Your task to perform on an android device: turn off notifications settings in the gmail app Image 0: 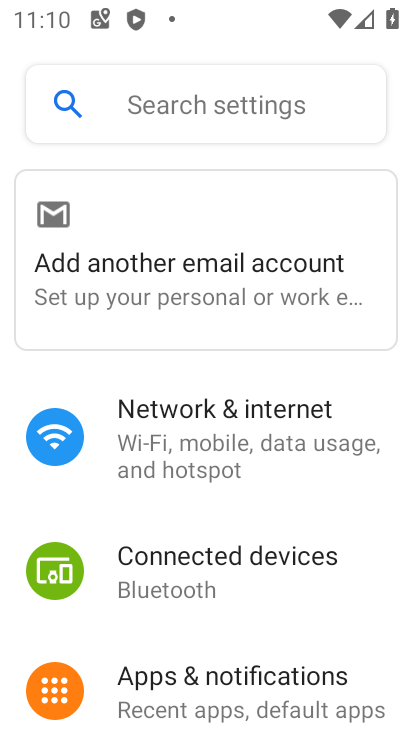
Step 0: press home button
Your task to perform on an android device: turn off notifications settings in the gmail app Image 1: 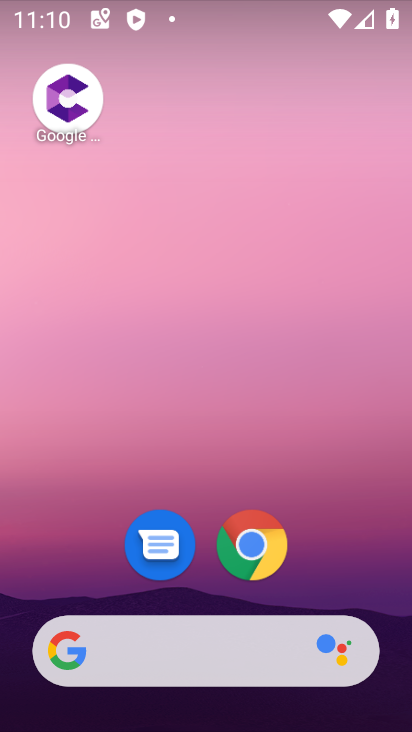
Step 1: drag from (330, 586) to (253, 323)
Your task to perform on an android device: turn off notifications settings in the gmail app Image 2: 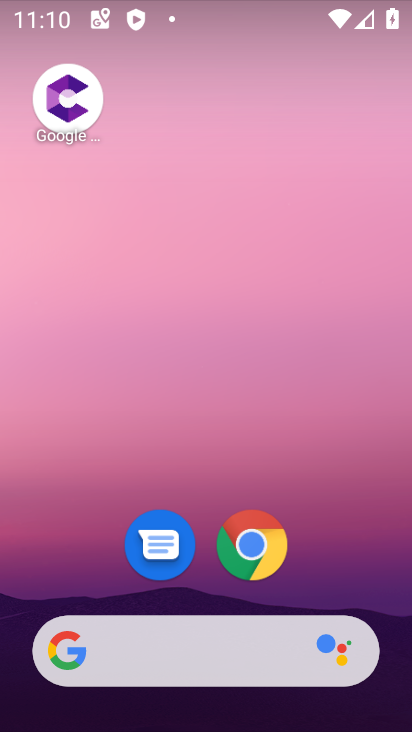
Step 2: drag from (317, 607) to (238, 1)
Your task to perform on an android device: turn off notifications settings in the gmail app Image 3: 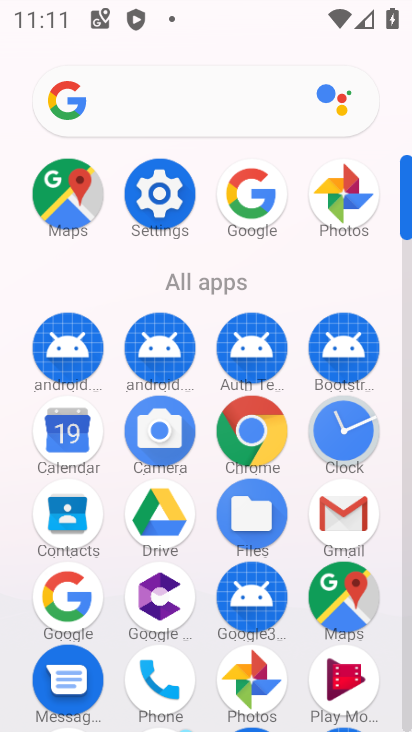
Step 3: click (337, 521)
Your task to perform on an android device: turn off notifications settings in the gmail app Image 4: 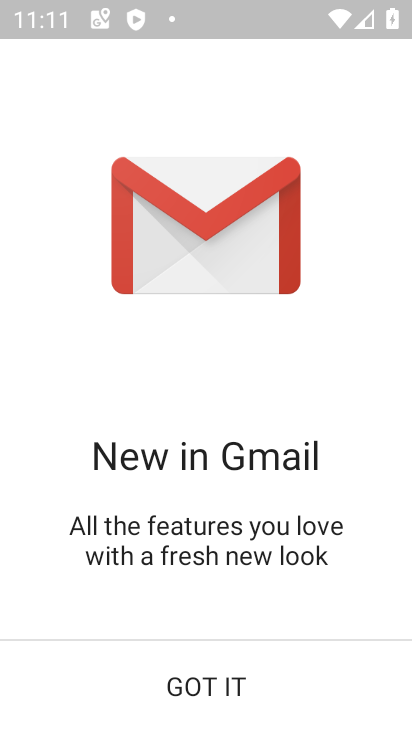
Step 4: click (212, 680)
Your task to perform on an android device: turn off notifications settings in the gmail app Image 5: 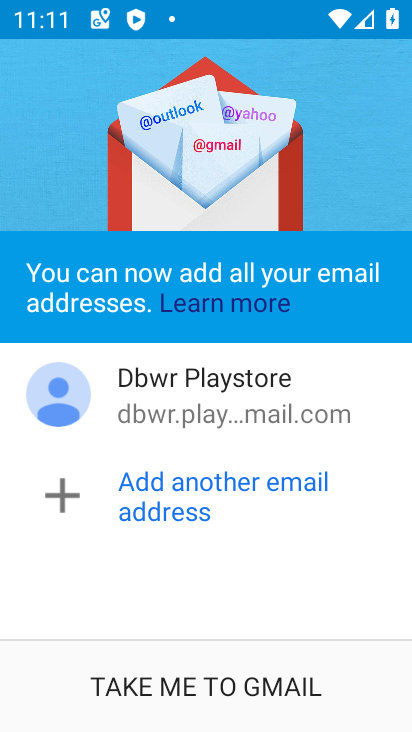
Step 5: click (180, 688)
Your task to perform on an android device: turn off notifications settings in the gmail app Image 6: 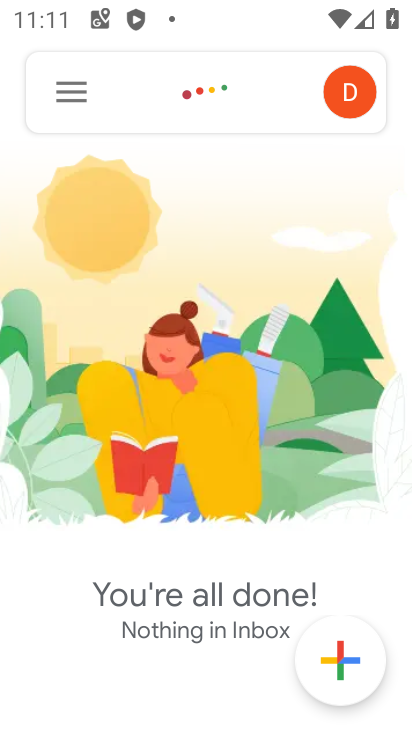
Step 6: click (75, 95)
Your task to perform on an android device: turn off notifications settings in the gmail app Image 7: 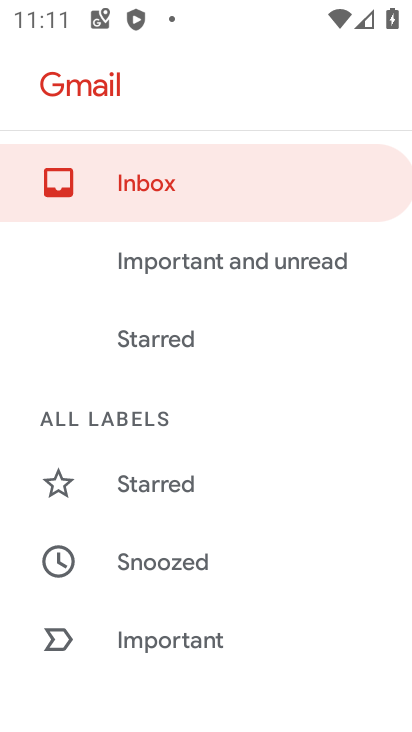
Step 7: drag from (192, 631) to (186, 386)
Your task to perform on an android device: turn off notifications settings in the gmail app Image 8: 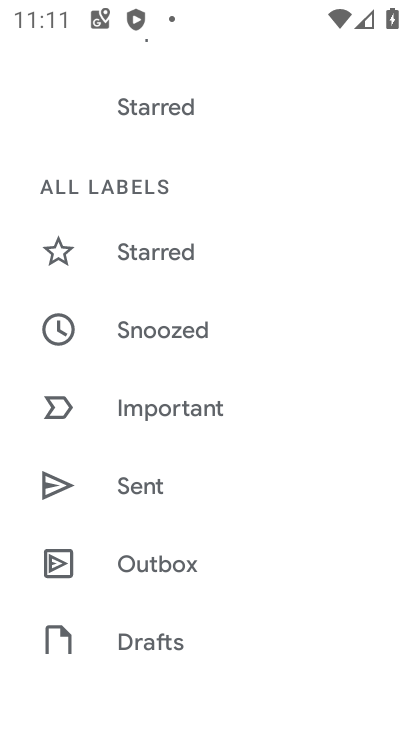
Step 8: click (190, 359)
Your task to perform on an android device: turn off notifications settings in the gmail app Image 9: 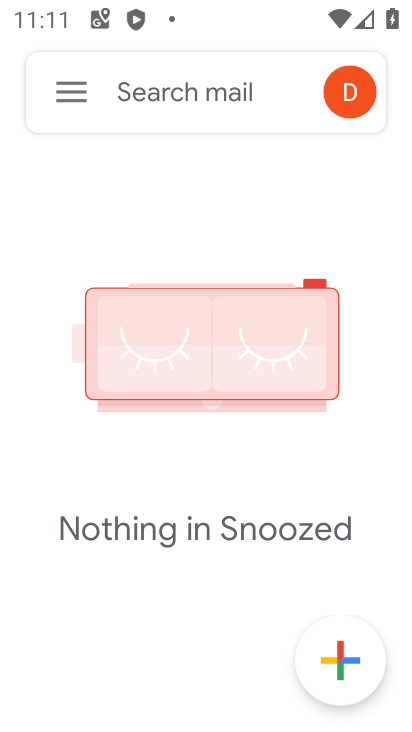
Step 9: click (73, 100)
Your task to perform on an android device: turn off notifications settings in the gmail app Image 10: 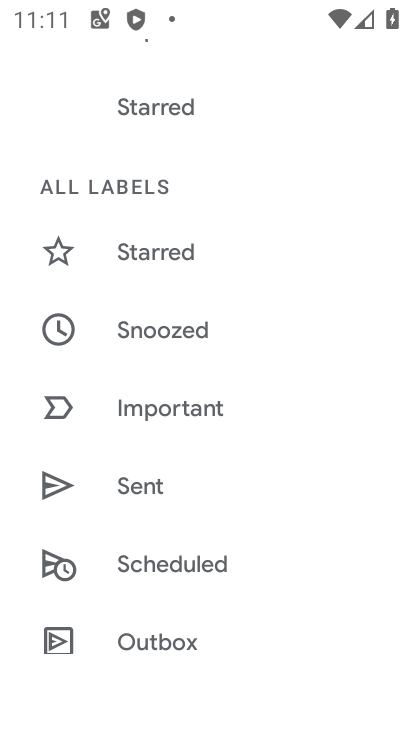
Step 10: drag from (186, 112) to (192, 70)
Your task to perform on an android device: turn off notifications settings in the gmail app Image 11: 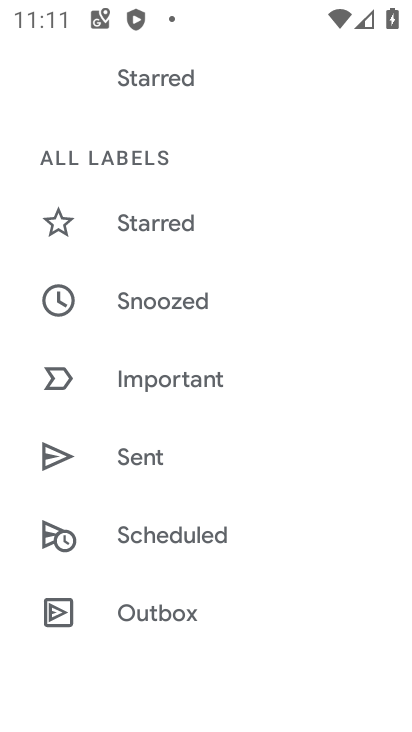
Step 11: drag from (179, 556) to (179, 94)
Your task to perform on an android device: turn off notifications settings in the gmail app Image 12: 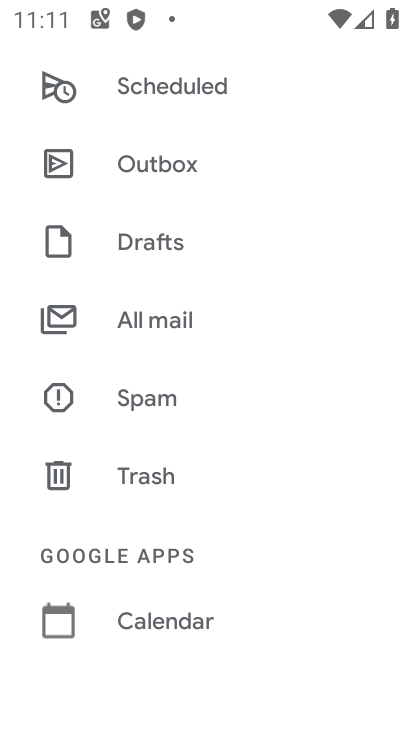
Step 12: drag from (196, 568) to (203, 122)
Your task to perform on an android device: turn off notifications settings in the gmail app Image 13: 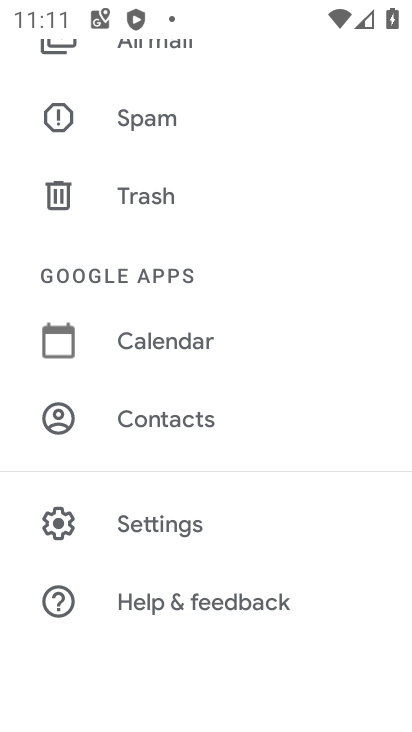
Step 13: click (152, 527)
Your task to perform on an android device: turn off notifications settings in the gmail app Image 14: 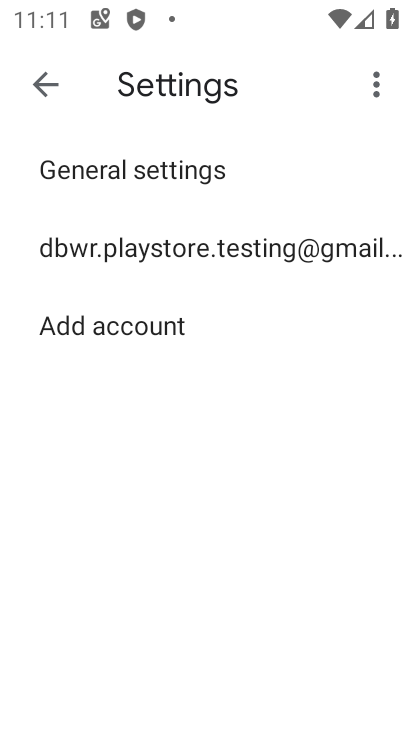
Step 14: click (173, 261)
Your task to perform on an android device: turn off notifications settings in the gmail app Image 15: 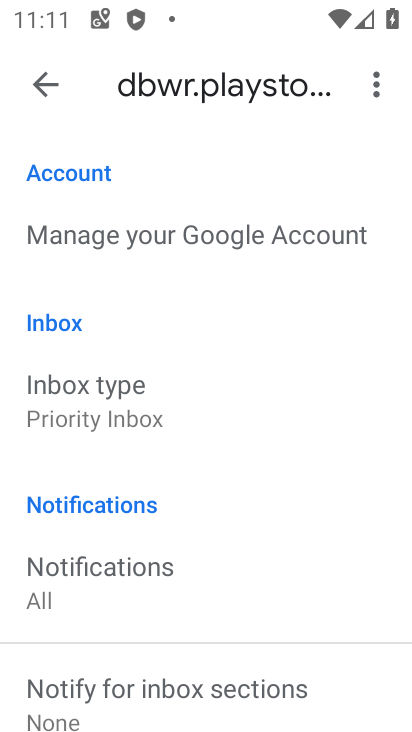
Step 15: click (105, 579)
Your task to perform on an android device: turn off notifications settings in the gmail app Image 16: 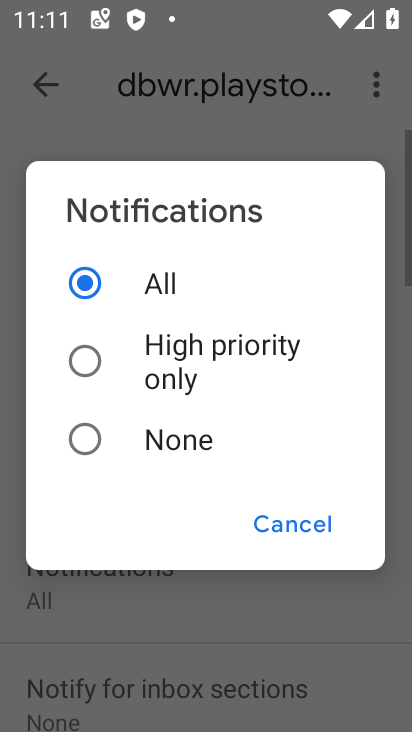
Step 16: click (103, 445)
Your task to perform on an android device: turn off notifications settings in the gmail app Image 17: 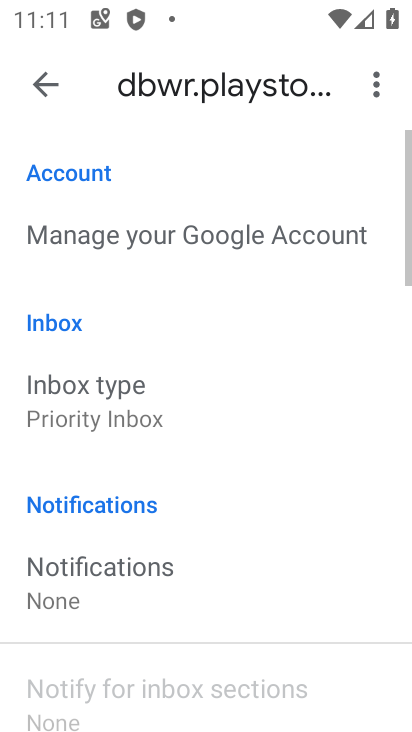
Step 17: task complete